Your task to perform on an android device: Find coffee shops on Maps Image 0: 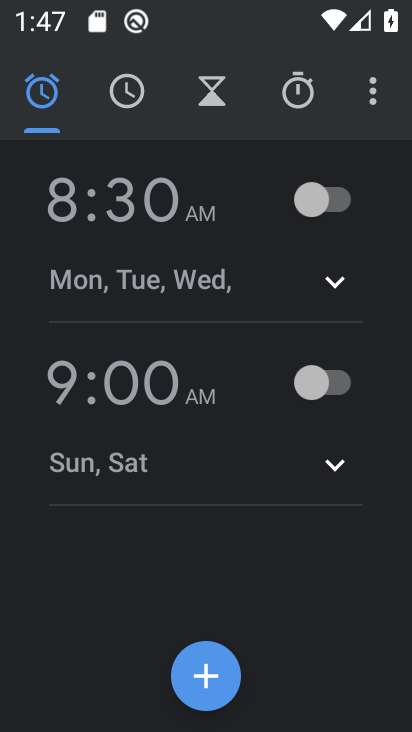
Step 0: press home button
Your task to perform on an android device: Find coffee shops on Maps Image 1: 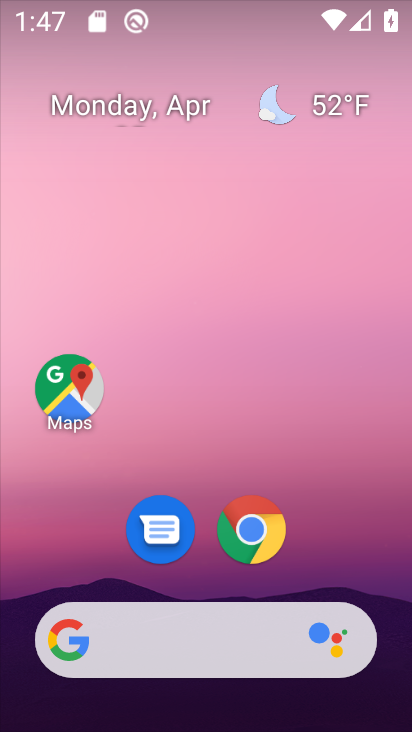
Step 1: click (84, 376)
Your task to perform on an android device: Find coffee shops on Maps Image 2: 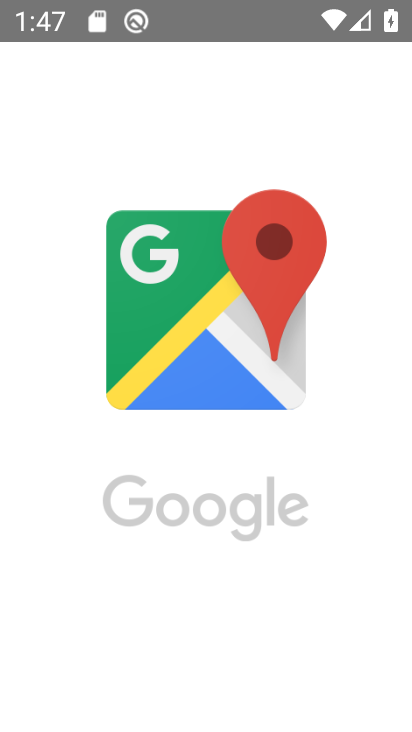
Step 2: click (84, 376)
Your task to perform on an android device: Find coffee shops on Maps Image 3: 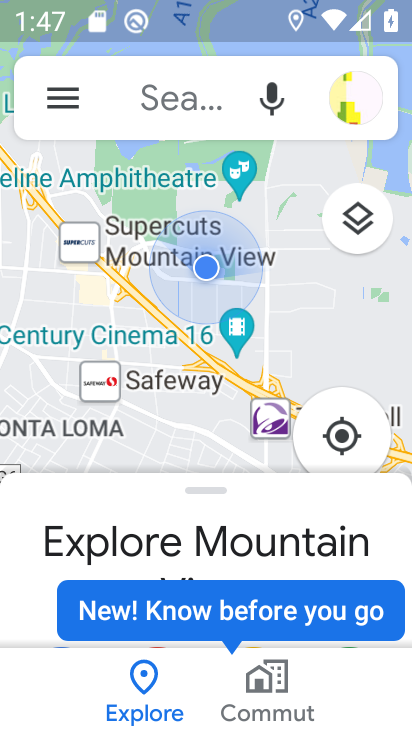
Step 3: click (213, 105)
Your task to perform on an android device: Find coffee shops on Maps Image 4: 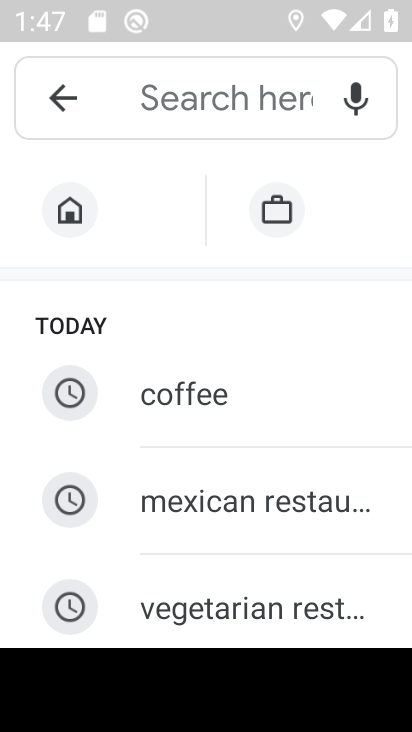
Step 4: type "coffee shops"
Your task to perform on an android device: Find coffee shops on Maps Image 5: 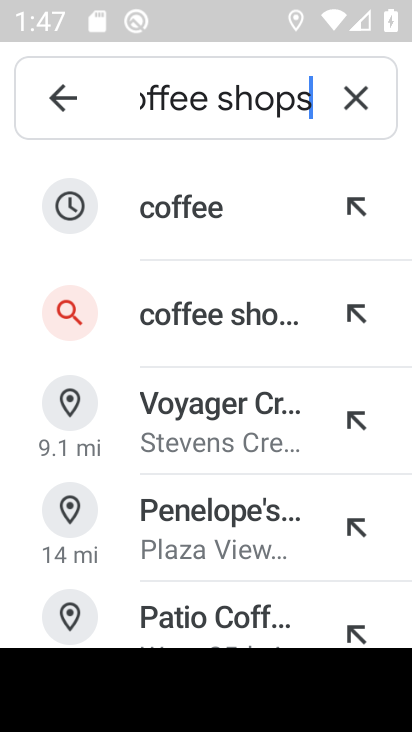
Step 5: click (165, 201)
Your task to perform on an android device: Find coffee shops on Maps Image 6: 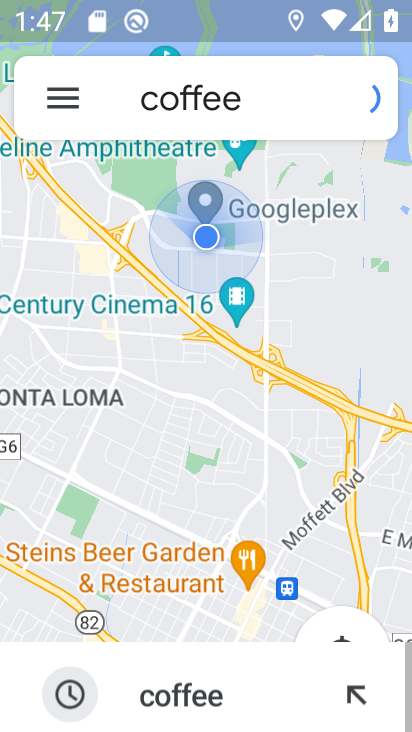
Step 6: click (160, 315)
Your task to perform on an android device: Find coffee shops on Maps Image 7: 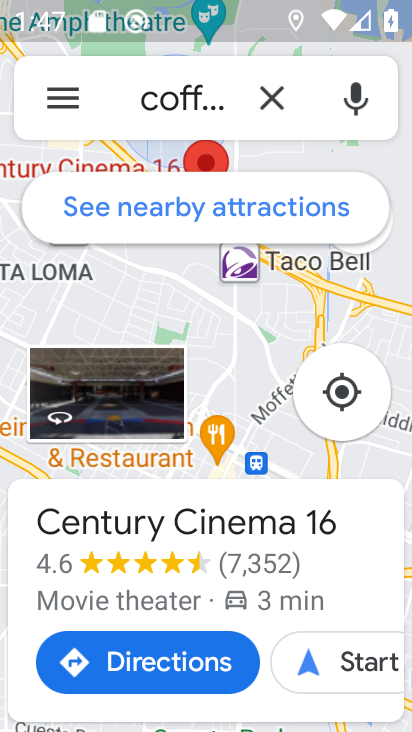
Step 7: task complete